Your task to perform on an android device: find photos in the google photos app Image 0: 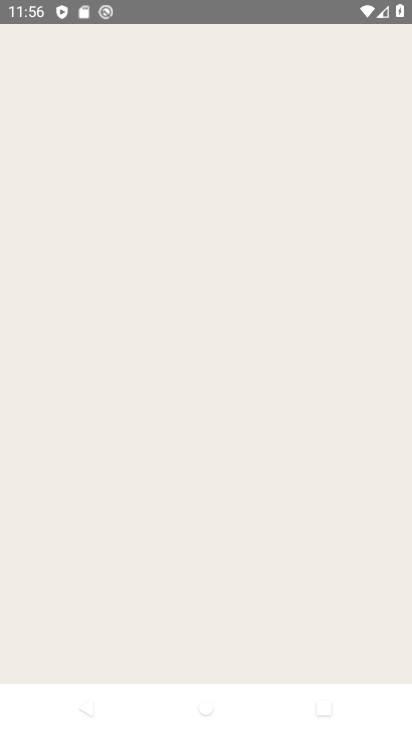
Step 0: click (124, 566)
Your task to perform on an android device: find photos in the google photos app Image 1: 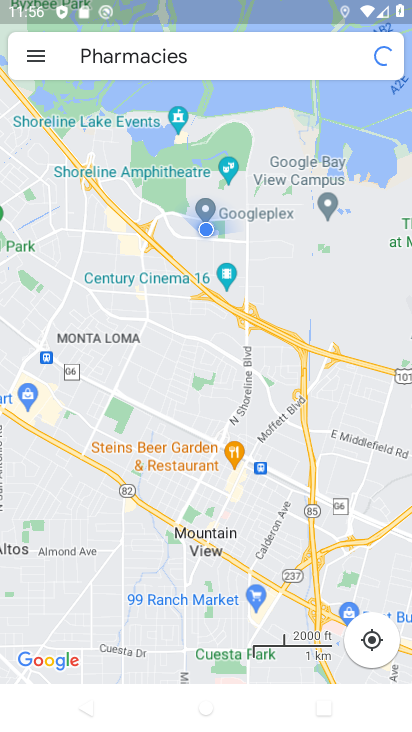
Step 1: press home button
Your task to perform on an android device: find photos in the google photos app Image 2: 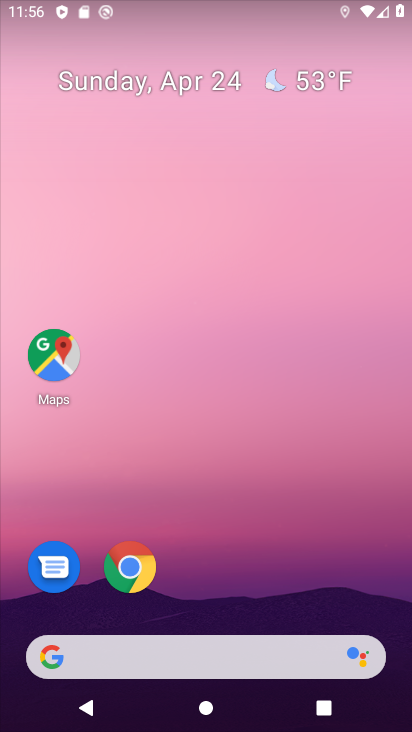
Step 2: drag from (260, 556) to (279, 93)
Your task to perform on an android device: find photos in the google photos app Image 3: 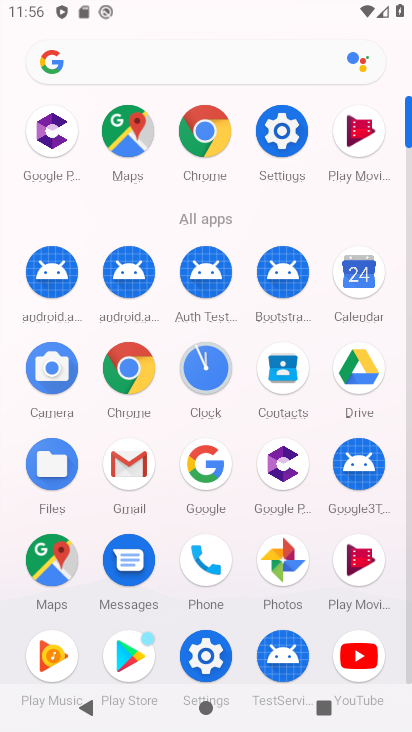
Step 3: click (290, 550)
Your task to perform on an android device: find photos in the google photos app Image 4: 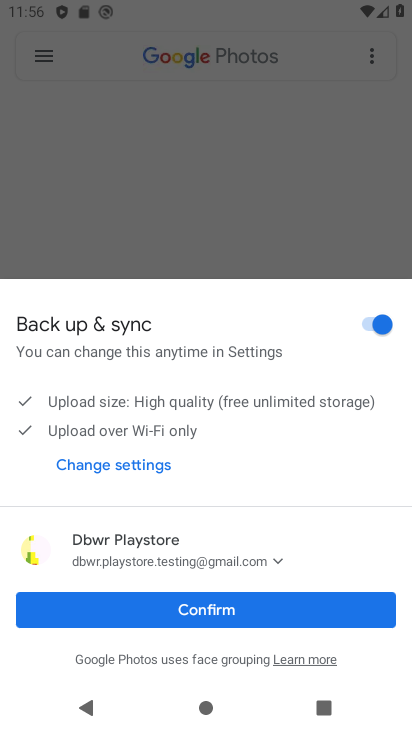
Step 4: click (290, 610)
Your task to perform on an android device: find photos in the google photos app Image 5: 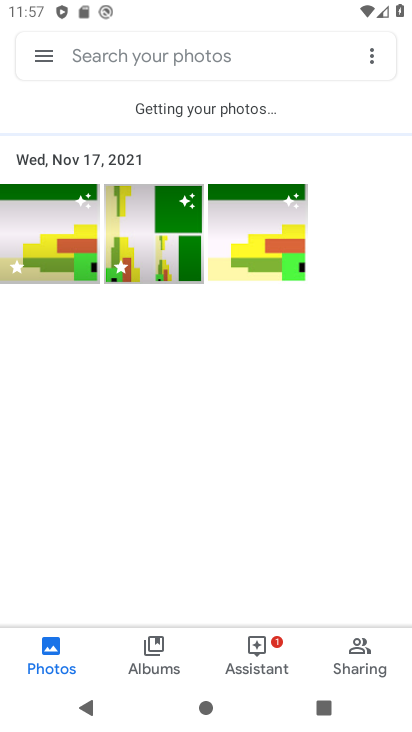
Step 5: task complete